Your task to perform on an android device: Check the weather Image 0: 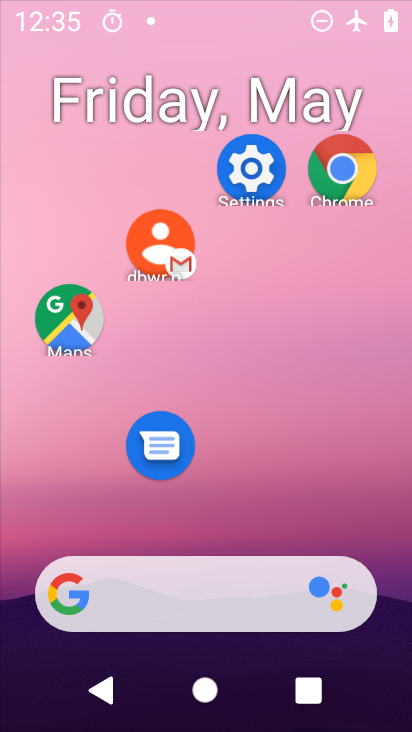
Step 0: click (232, 137)
Your task to perform on an android device: Check the weather Image 1: 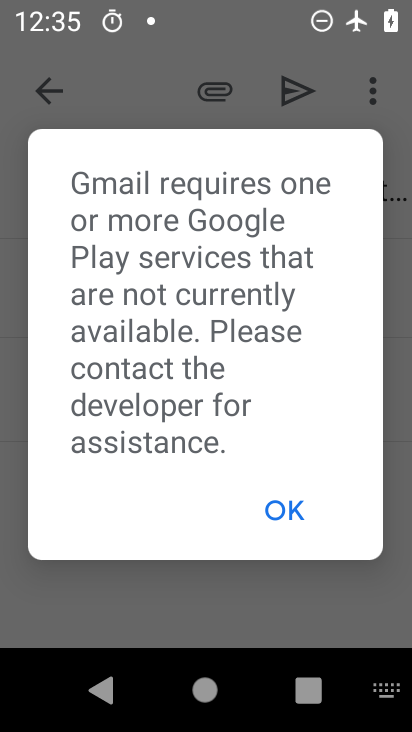
Step 1: click (303, 506)
Your task to perform on an android device: Check the weather Image 2: 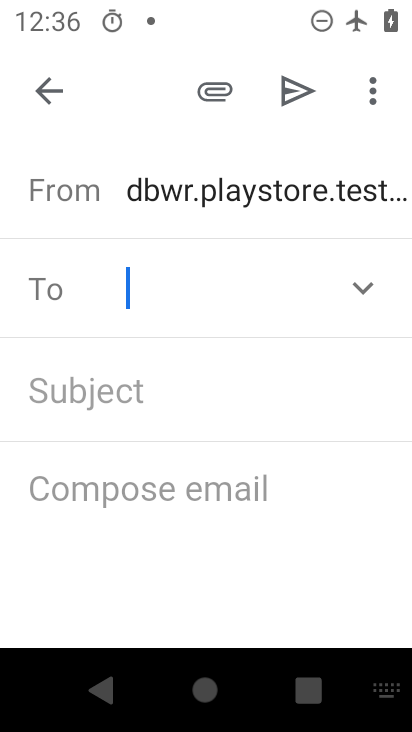
Step 2: drag from (170, 499) to (182, 228)
Your task to perform on an android device: Check the weather Image 3: 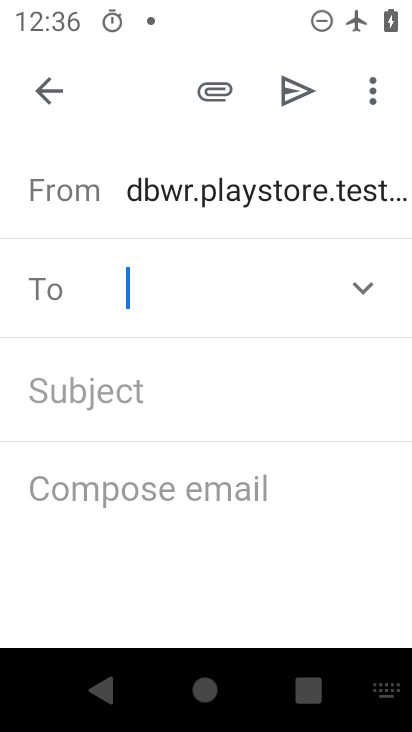
Step 3: press home button
Your task to perform on an android device: Check the weather Image 4: 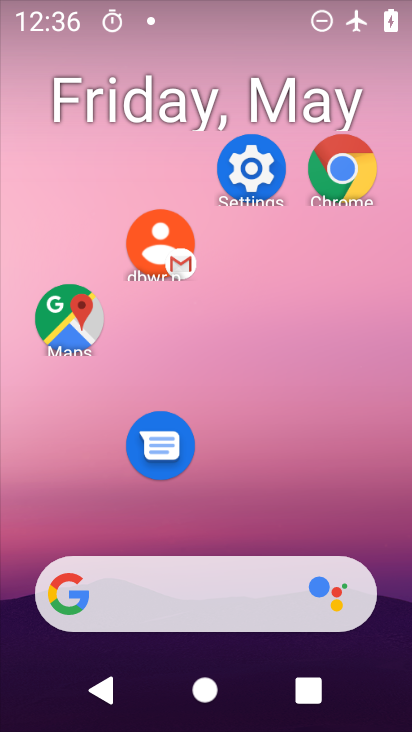
Step 4: drag from (218, 280) to (215, 133)
Your task to perform on an android device: Check the weather Image 5: 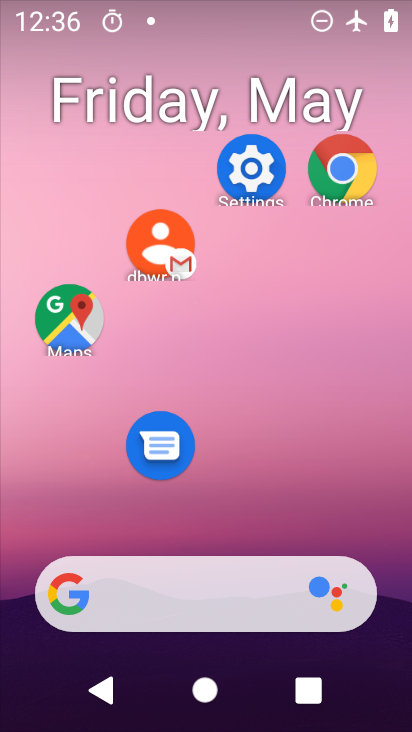
Step 5: drag from (231, 508) to (236, 160)
Your task to perform on an android device: Check the weather Image 6: 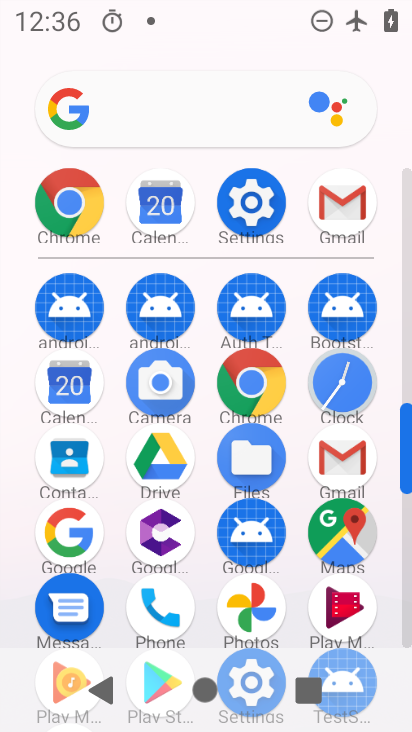
Step 6: click (197, 104)
Your task to perform on an android device: Check the weather Image 7: 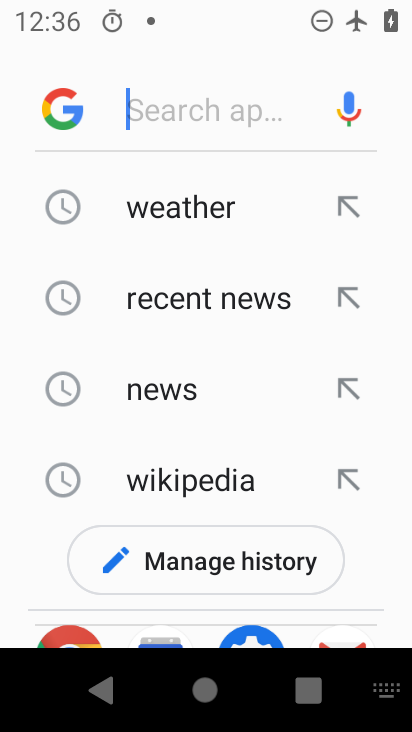
Step 7: click (159, 211)
Your task to perform on an android device: Check the weather Image 8: 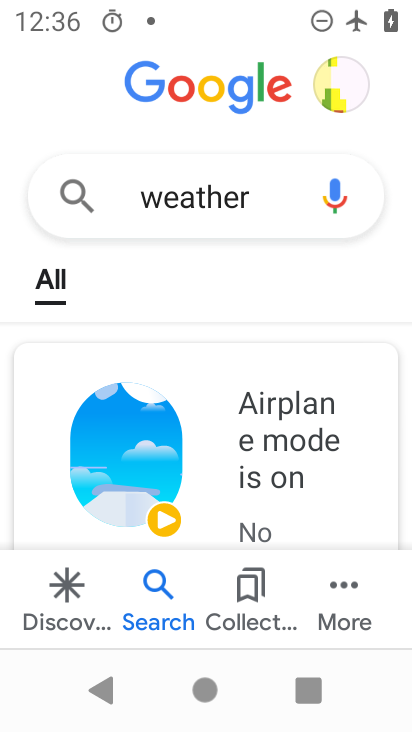
Step 8: drag from (223, 526) to (222, 257)
Your task to perform on an android device: Check the weather Image 9: 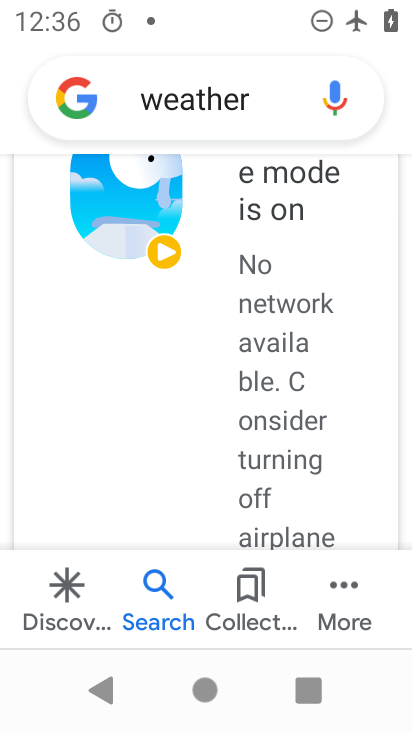
Step 9: drag from (354, 6) to (408, 622)
Your task to perform on an android device: Check the weather Image 10: 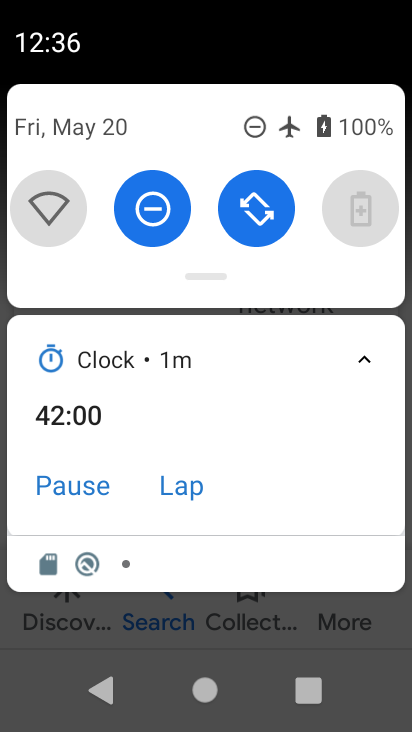
Step 10: drag from (320, 200) to (1, 243)
Your task to perform on an android device: Check the weather Image 11: 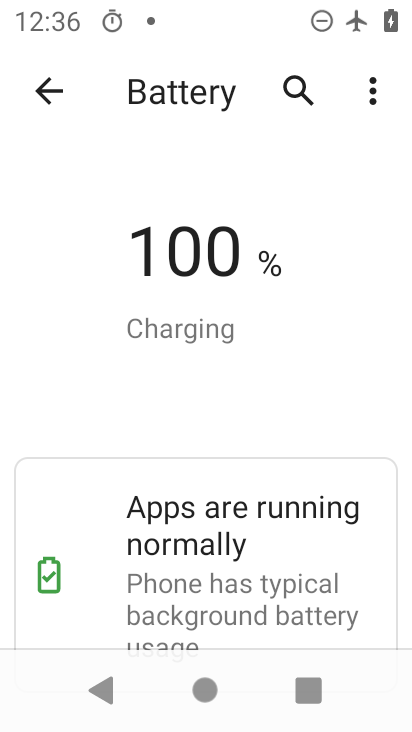
Step 11: drag from (334, 13) to (258, 614)
Your task to perform on an android device: Check the weather Image 12: 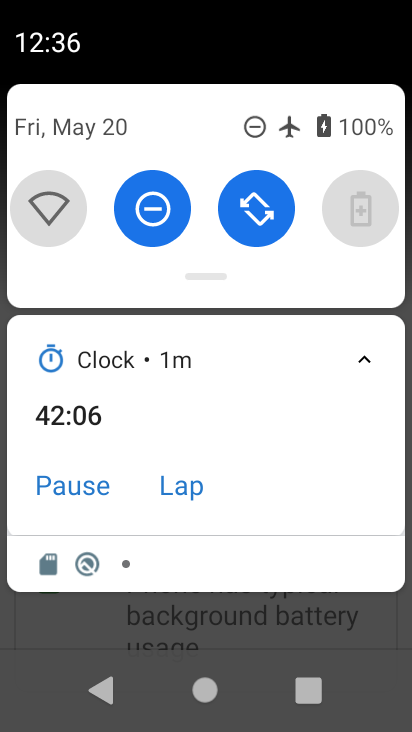
Step 12: drag from (270, 236) to (248, 727)
Your task to perform on an android device: Check the weather Image 13: 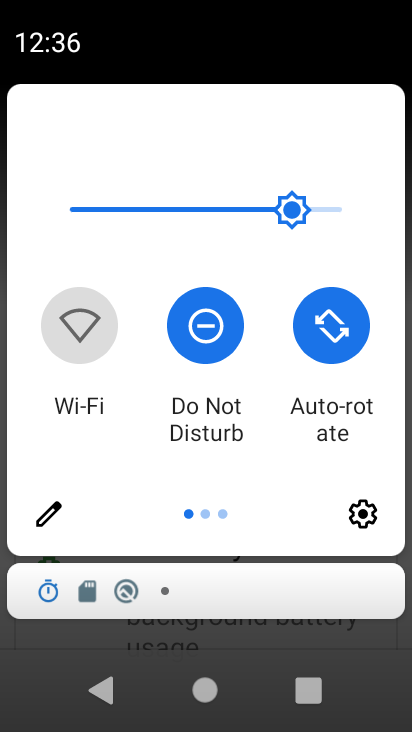
Step 13: drag from (360, 389) to (0, 416)
Your task to perform on an android device: Check the weather Image 14: 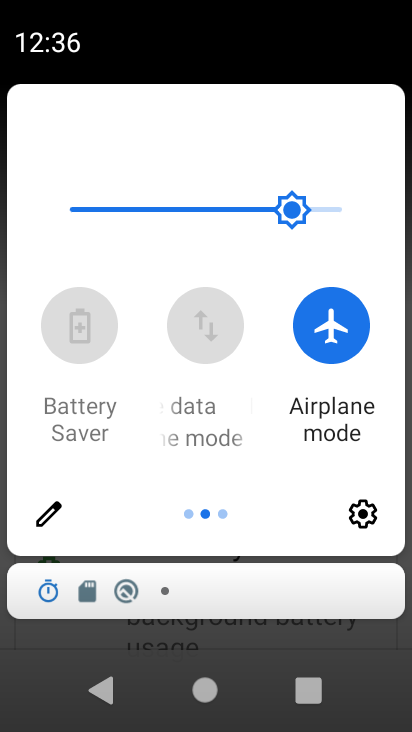
Step 14: click (326, 331)
Your task to perform on an android device: Check the weather Image 15: 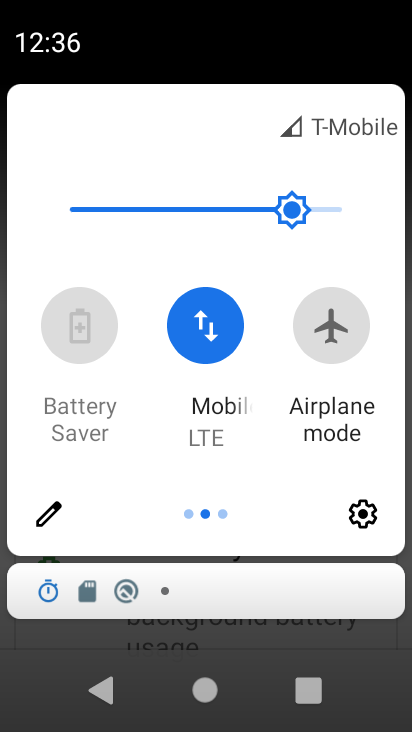
Step 15: task complete